Your task to perform on an android device: add a label to a message in the gmail app Image 0: 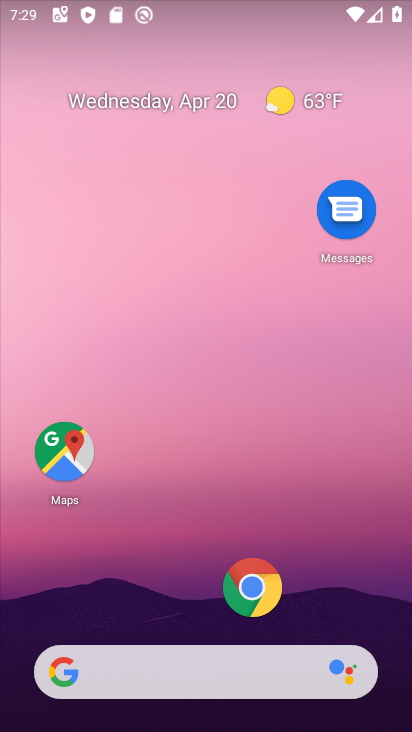
Step 0: drag from (156, 672) to (336, 163)
Your task to perform on an android device: add a label to a message in the gmail app Image 1: 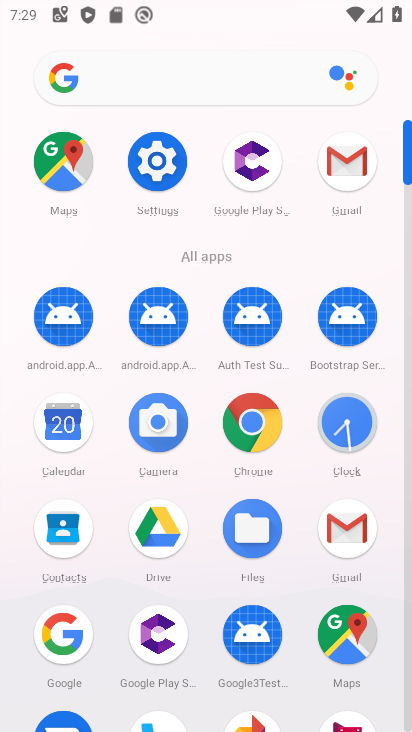
Step 1: click (355, 168)
Your task to perform on an android device: add a label to a message in the gmail app Image 2: 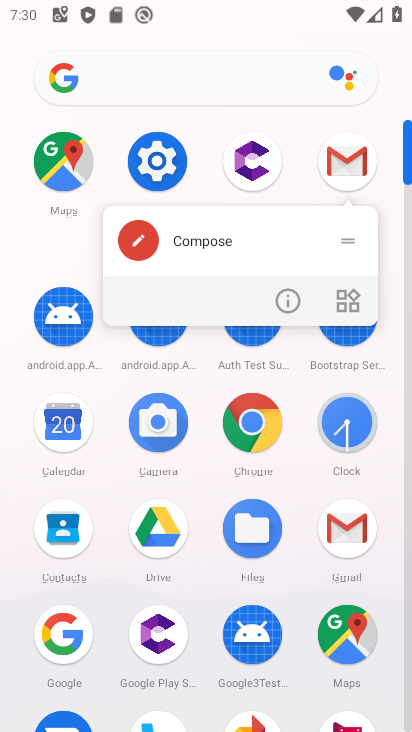
Step 2: click (345, 169)
Your task to perform on an android device: add a label to a message in the gmail app Image 3: 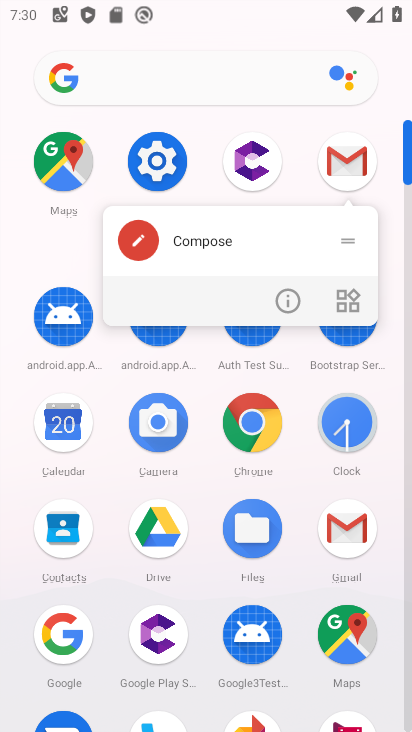
Step 3: click (345, 170)
Your task to perform on an android device: add a label to a message in the gmail app Image 4: 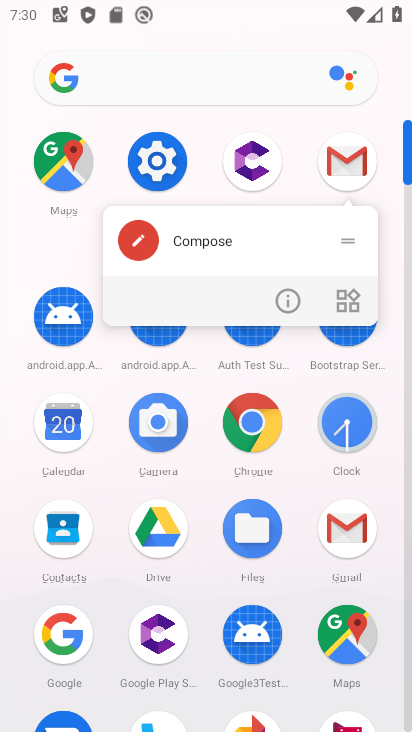
Step 4: click (347, 165)
Your task to perform on an android device: add a label to a message in the gmail app Image 5: 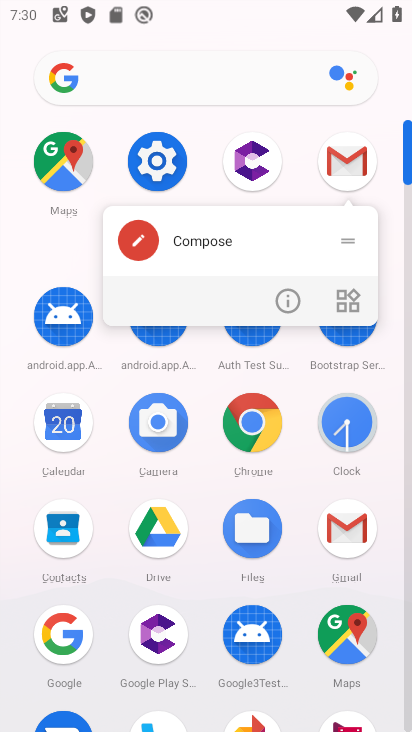
Step 5: click (341, 165)
Your task to perform on an android device: add a label to a message in the gmail app Image 6: 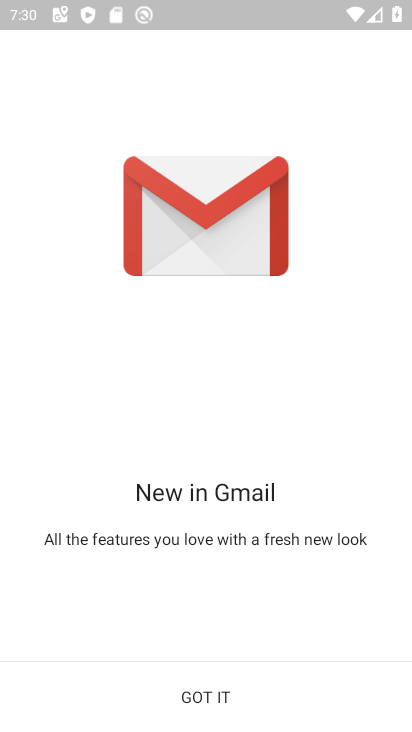
Step 6: click (219, 699)
Your task to perform on an android device: add a label to a message in the gmail app Image 7: 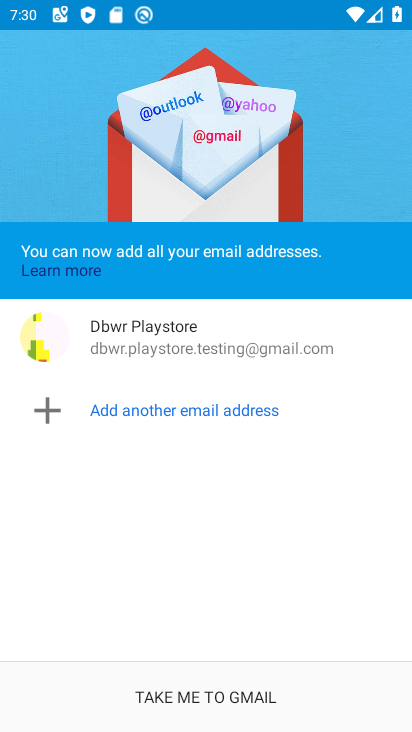
Step 7: click (219, 693)
Your task to perform on an android device: add a label to a message in the gmail app Image 8: 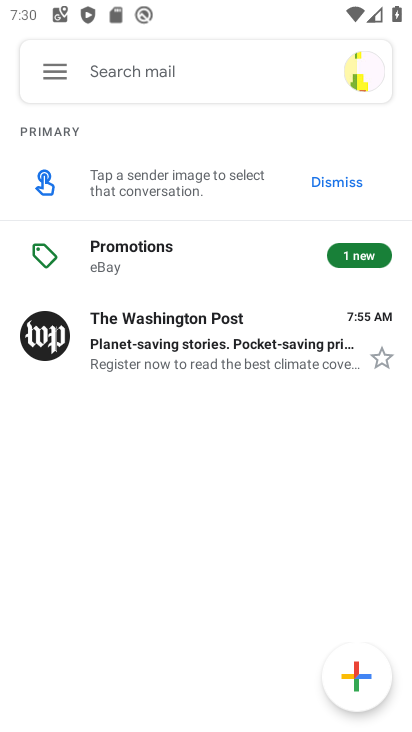
Step 8: click (150, 332)
Your task to perform on an android device: add a label to a message in the gmail app Image 9: 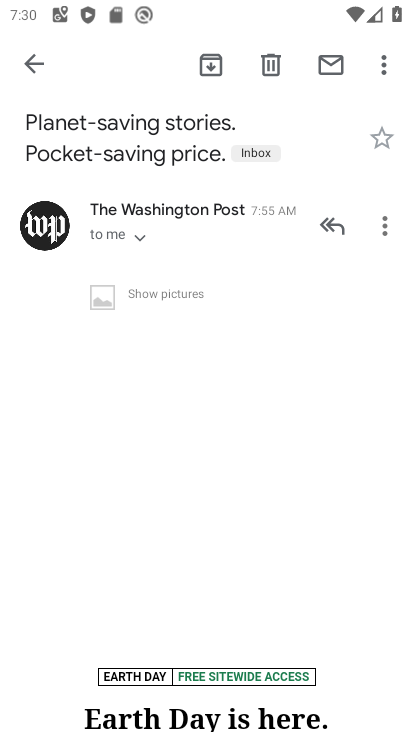
Step 9: click (247, 144)
Your task to perform on an android device: add a label to a message in the gmail app Image 10: 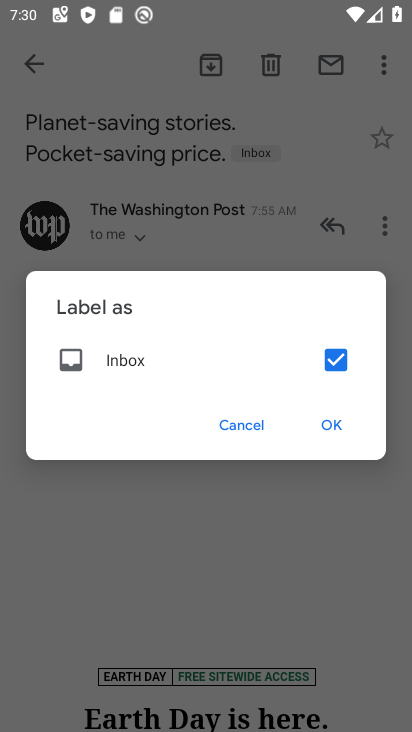
Step 10: click (345, 360)
Your task to perform on an android device: add a label to a message in the gmail app Image 11: 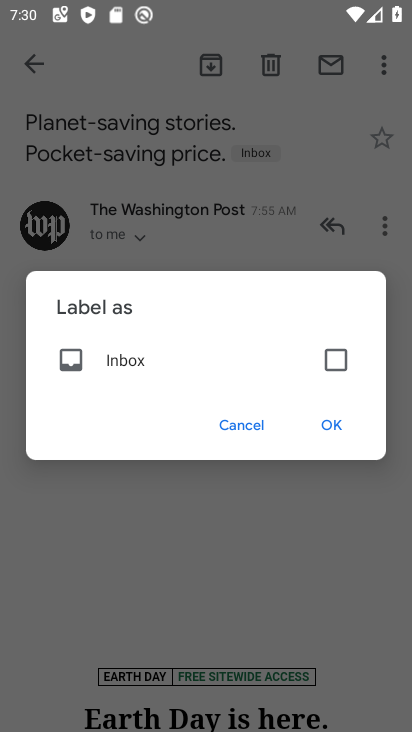
Step 11: click (325, 427)
Your task to perform on an android device: add a label to a message in the gmail app Image 12: 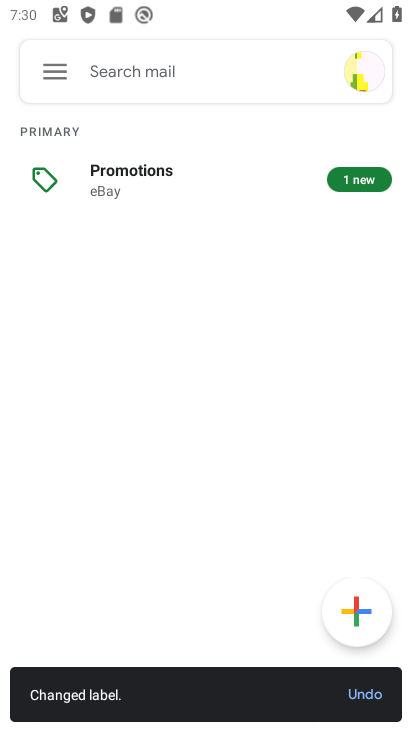
Step 12: task complete